Your task to perform on an android device: toggle data saver in the chrome app Image 0: 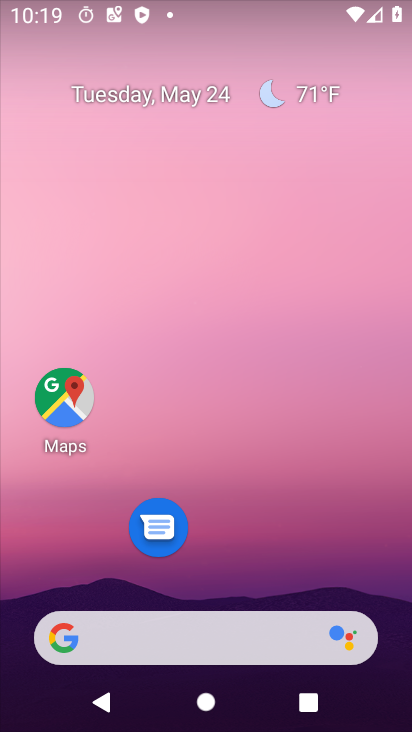
Step 0: drag from (239, 552) to (257, 40)
Your task to perform on an android device: toggle data saver in the chrome app Image 1: 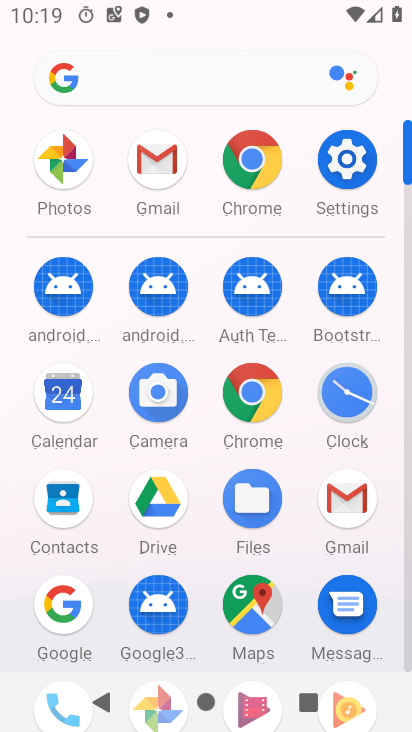
Step 1: click (250, 161)
Your task to perform on an android device: toggle data saver in the chrome app Image 2: 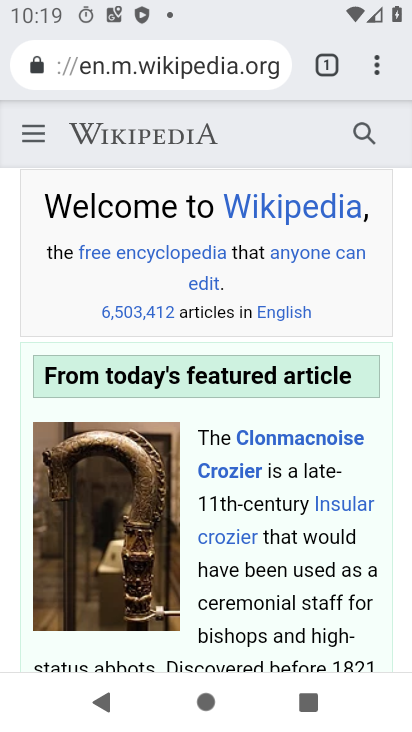
Step 2: click (371, 60)
Your task to perform on an android device: toggle data saver in the chrome app Image 3: 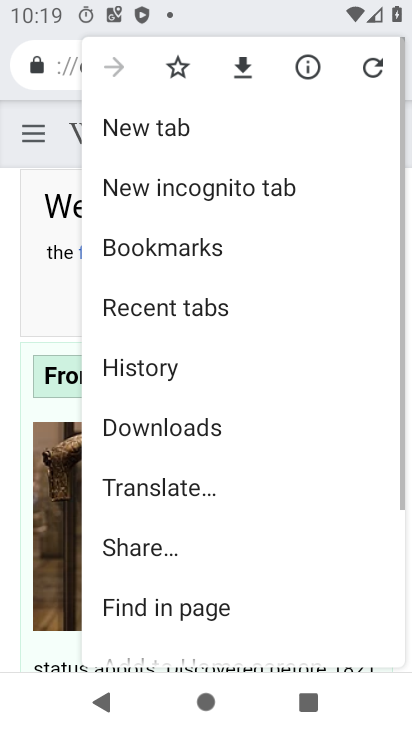
Step 3: drag from (220, 558) to (255, 98)
Your task to perform on an android device: toggle data saver in the chrome app Image 4: 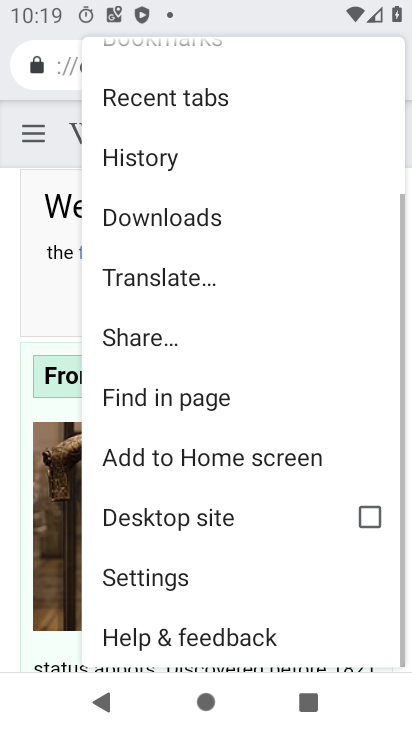
Step 4: click (153, 578)
Your task to perform on an android device: toggle data saver in the chrome app Image 5: 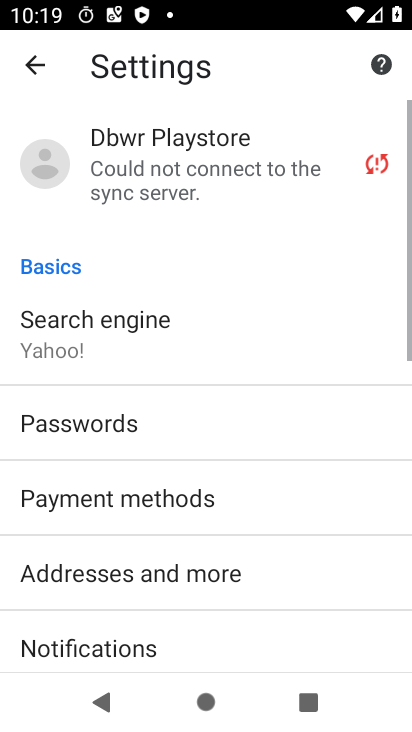
Step 5: drag from (208, 612) to (227, 109)
Your task to perform on an android device: toggle data saver in the chrome app Image 6: 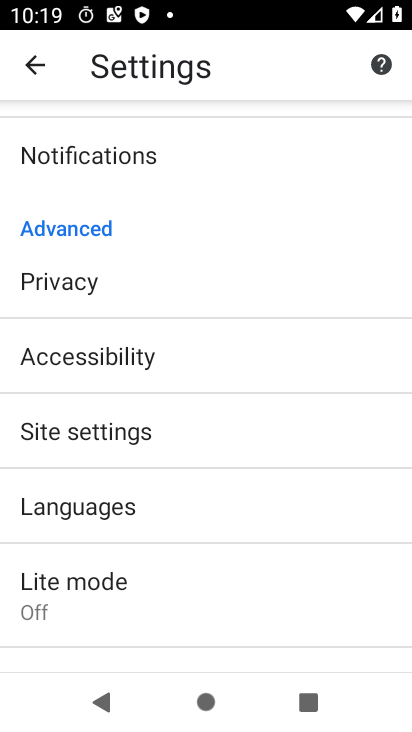
Step 6: click (99, 600)
Your task to perform on an android device: toggle data saver in the chrome app Image 7: 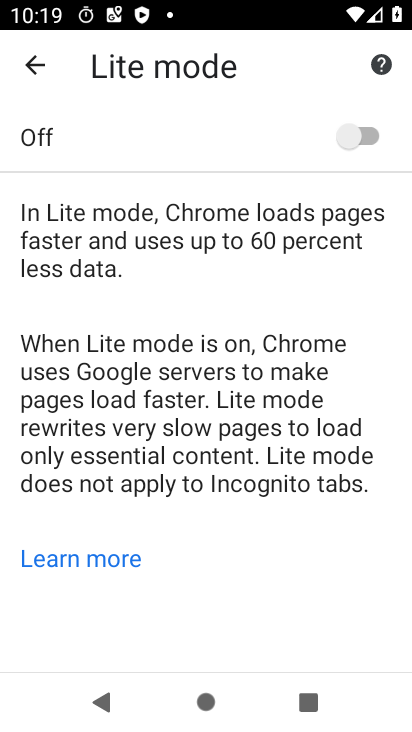
Step 7: click (359, 137)
Your task to perform on an android device: toggle data saver in the chrome app Image 8: 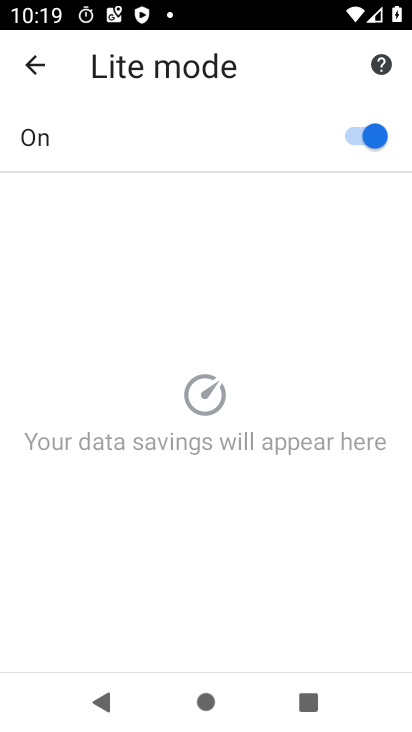
Step 8: task complete